Your task to perform on an android device: Go to eBay Image 0: 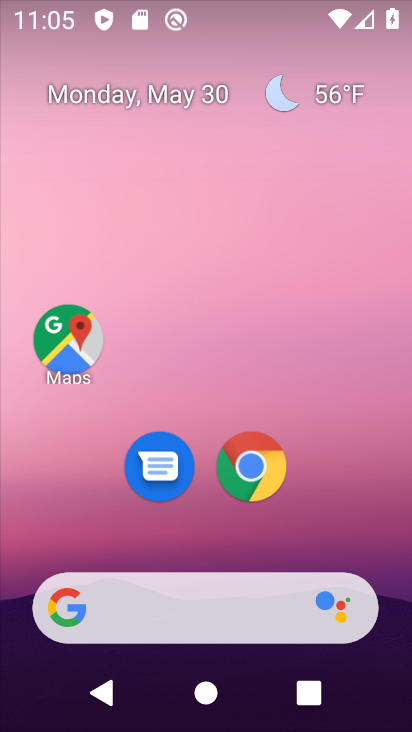
Step 0: click (248, 465)
Your task to perform on an android device: Go to eBay Image 1: 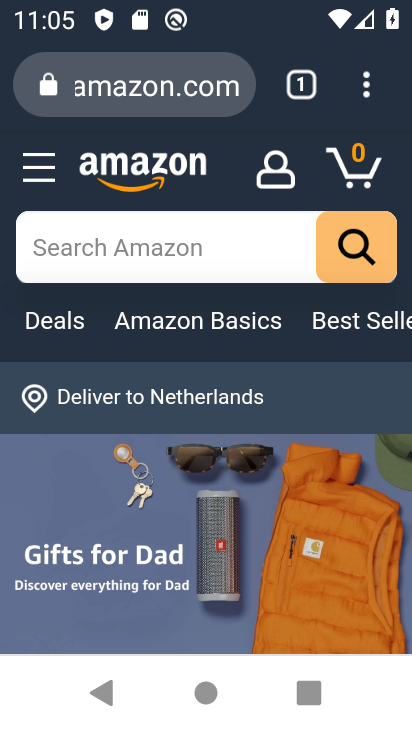
Step 1: click (311, 98)
Your task to perform on an android device: Go to eBay Image 2: 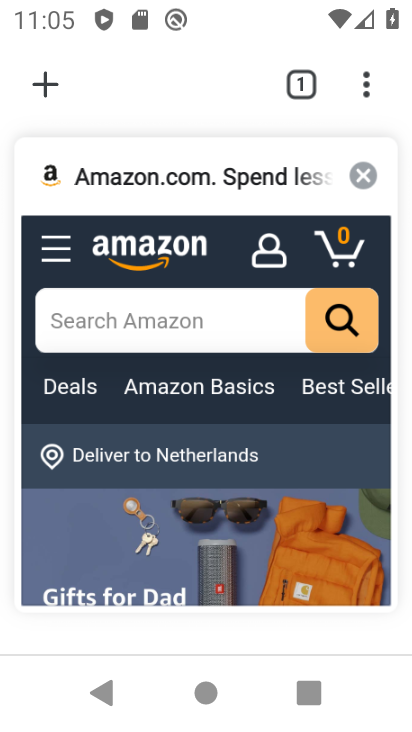
Step 2: click (359, 173)
Your task to perform on an android device: Go to eBay Image 3: 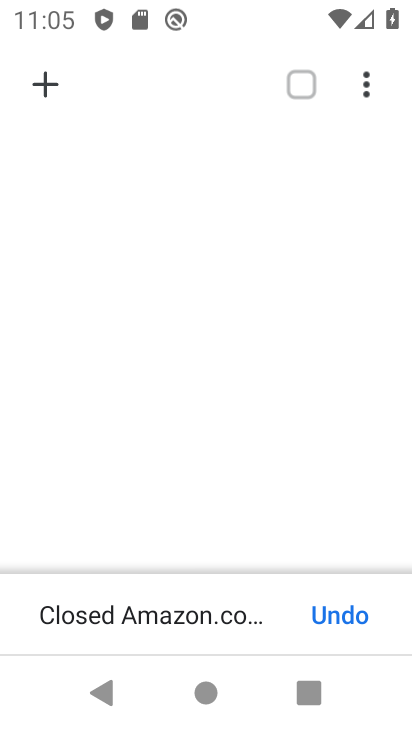
Step 3: click (61, 78)
Your task to perform on an android device: Go to eBay Image 4: 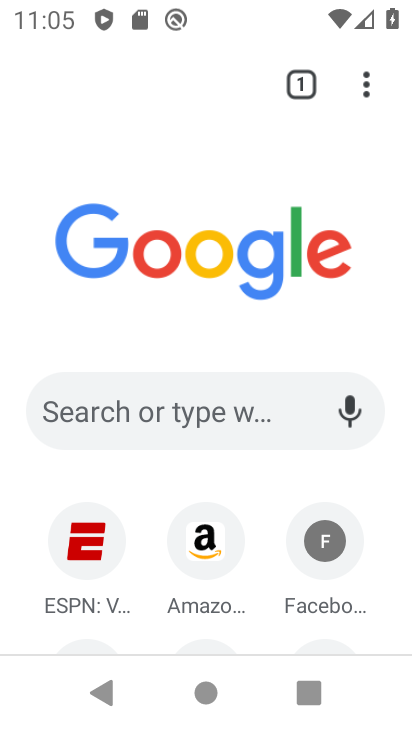
Step 4: drag from (249, 514) to (261, 250)
Your task to perform on an android device: Go to eBay Image 5: 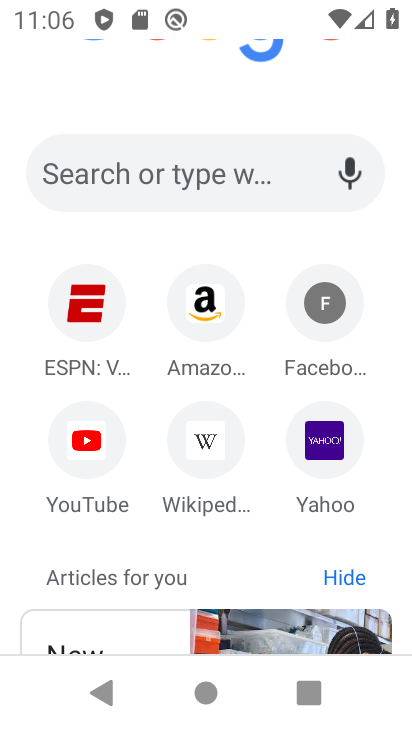
Step 5: click (231, 179)
Your task to perform on an android device: Go to eBay Image 6: 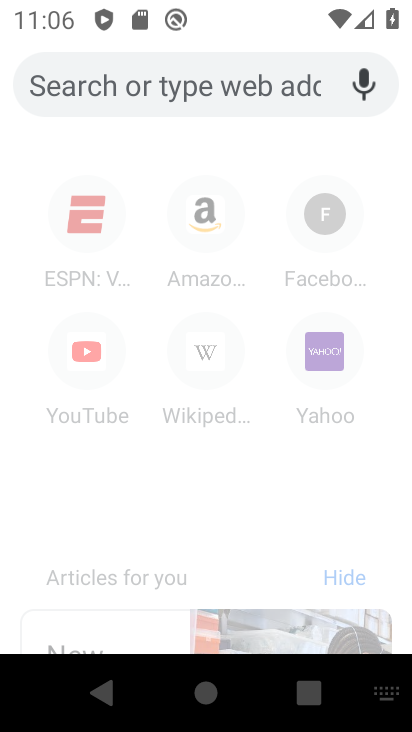
Step 6: type "ebay"
Your task to perform on an android device: Go to eBay Image 7: 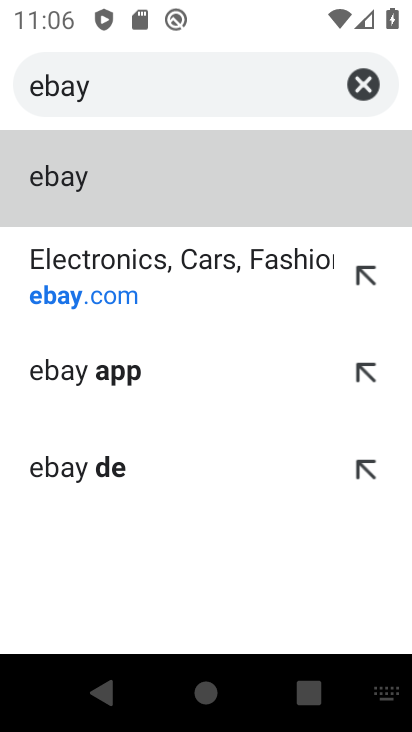
Step 7: click (192, 260)
Your task to perform on an android device: Go to eBay Image 8: 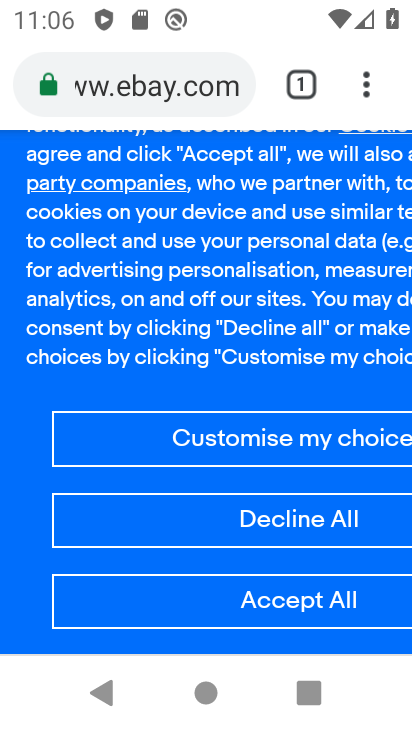
Step 8: task complete